Your task to perform on an android device: Find coffee shops on Maps Image 0: 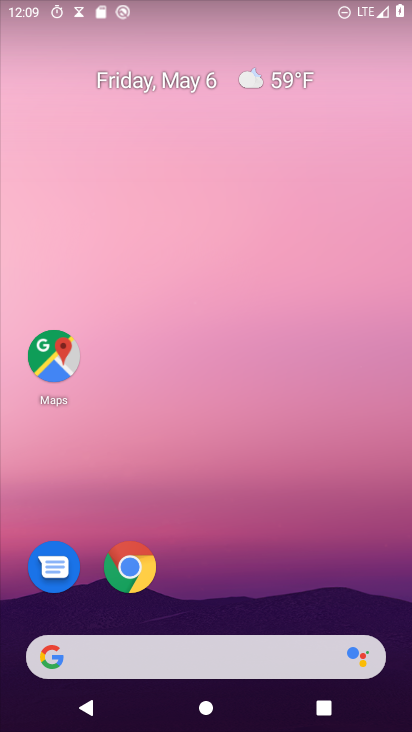
Step 0: click (54, 338)
Your task to perform on an android device: Find coffee shops on Maps Image 1: 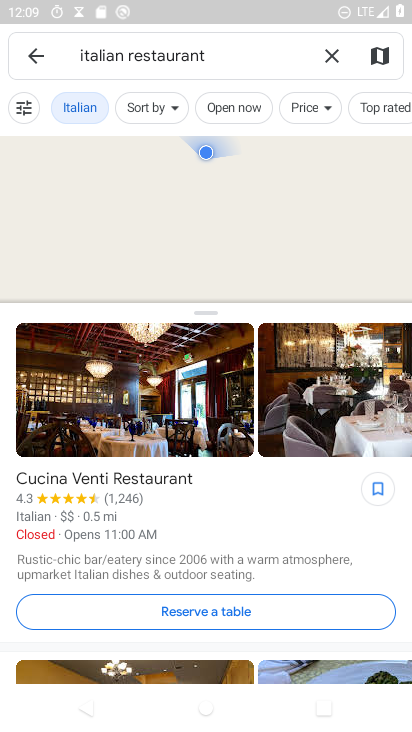
Step 1: click (331, 60)
Your task to perform on an android device: Find coffee shops on Maps Image 2: 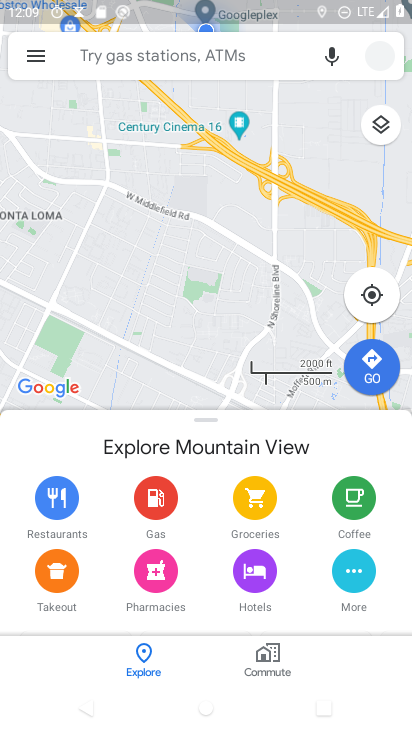
Step 2: click (95, 56)
Your task to perform on an android device: Find coffee shops on Maps Image 3: 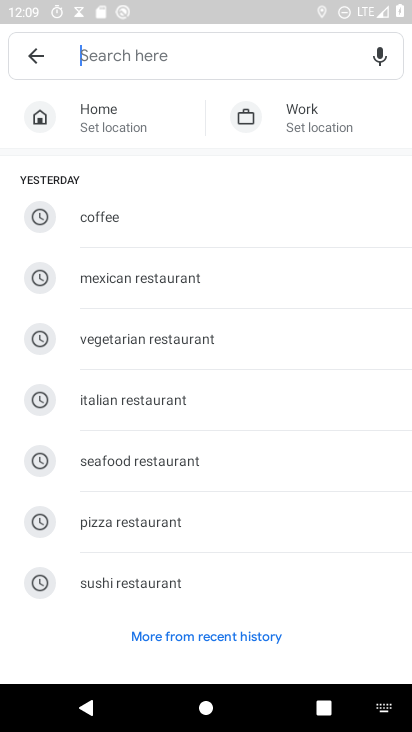
Step 3: type "coffee shops"
Your task to perform on an android device: Find coffee shops on Maps Image 4: 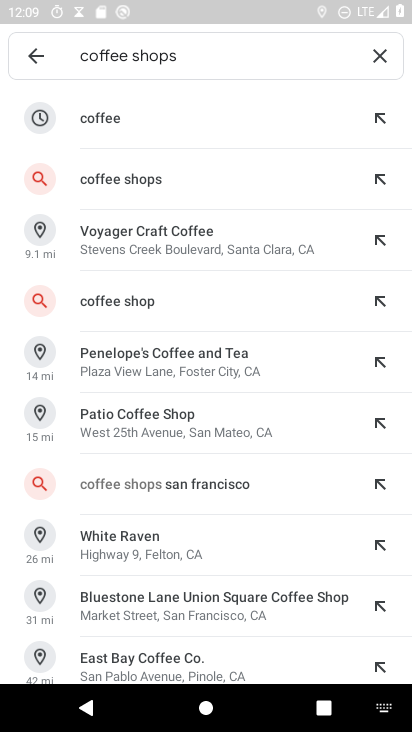
Step 4: click (107, 175)
Your task to perform on an android device: Find coffee shops on Maps Image 5: 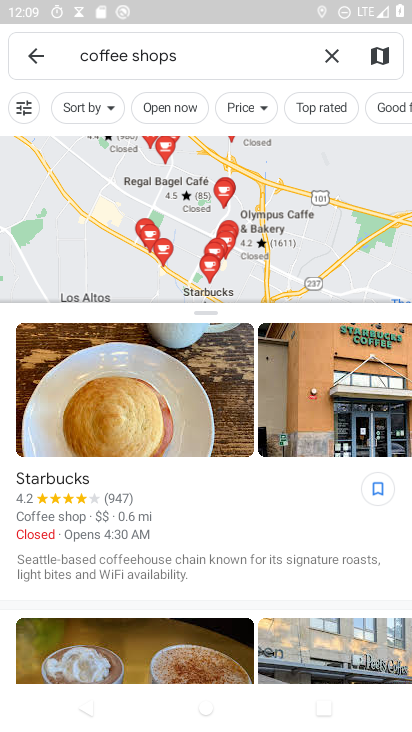
Step 5: task complete